Your task to perform on an android device: open sync settings in chrome Image 0: 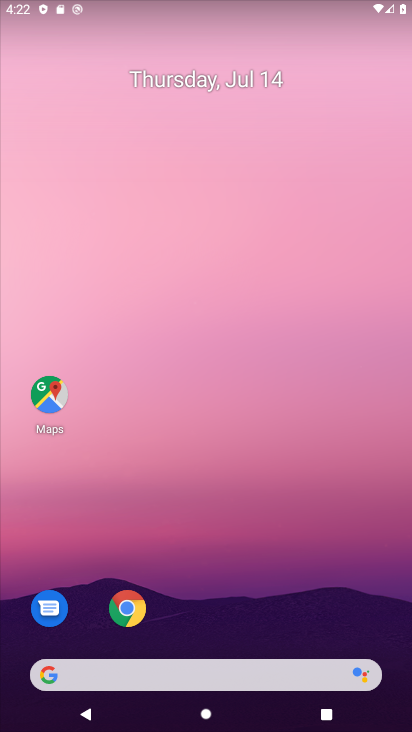
Step 0: click (135, 616)
Your task to perform on an android device: open sync settings in chrome Image 1: 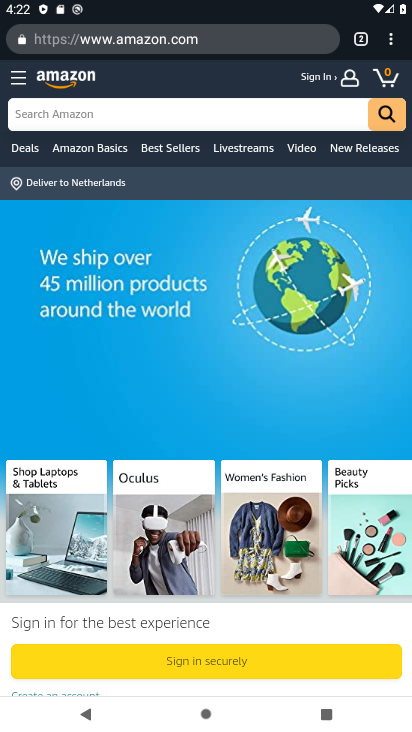
Step 1: click (385, 42)
Your task to perform on an android device: open sync settings in chrome Image 2: 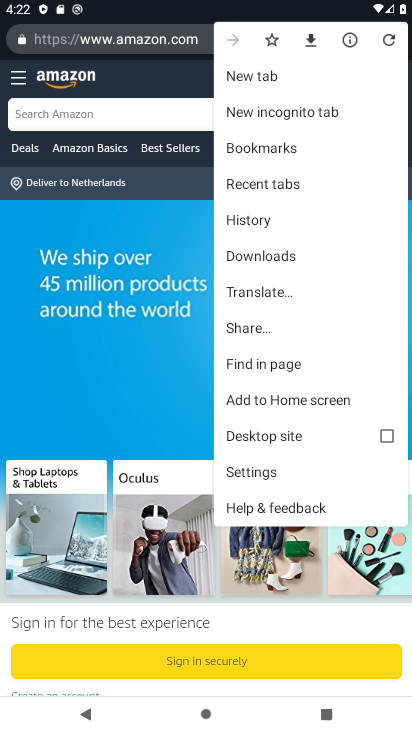
Step 2: click (268, 477)
Your task to perform on an android device: open sync settings in chrome Image 3: 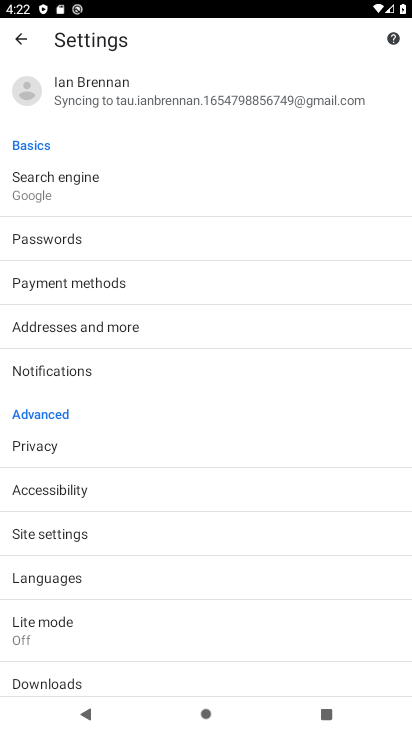
Step 3: click (141, 101)
Your task to perform on an android device: open sync settings in chrome Image 4: 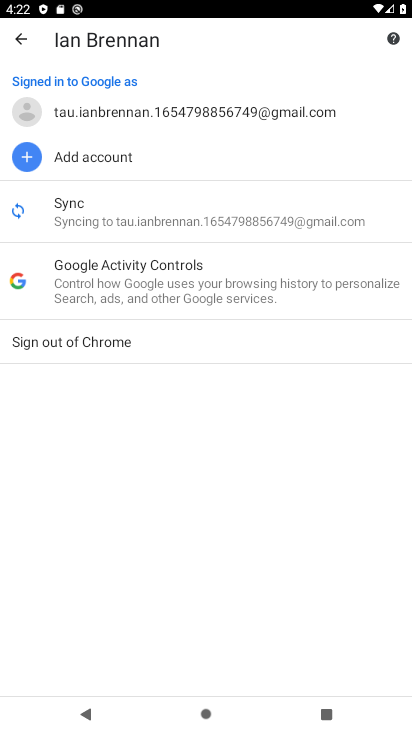
Step 4: click (112, 233)
Your task to perform on an android device: open sync settings in chrome Image 5: 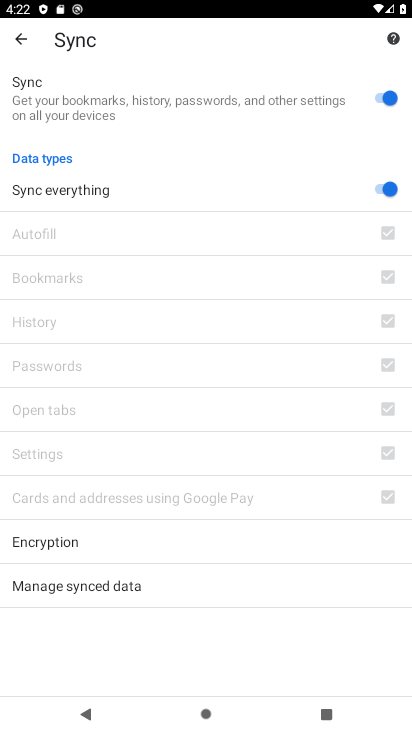
Step 5: task complete